Your task to perform on an android device: Search for the new Jordans on Nike.com Image 0: 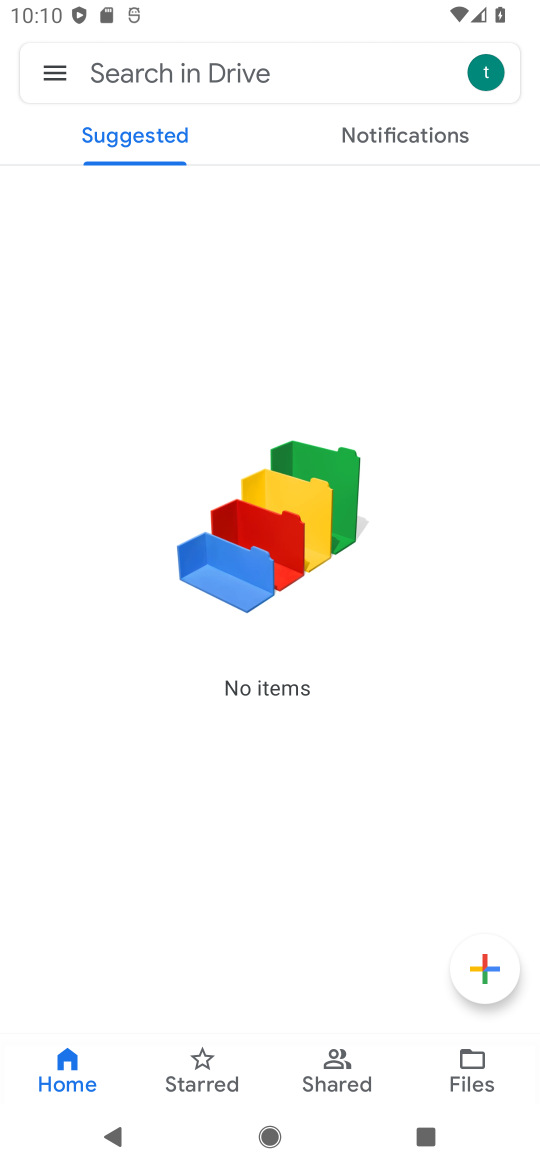
Step 0: task complete